Your task to perform on an android device: turn off smart reply in the gmail app Image 0: 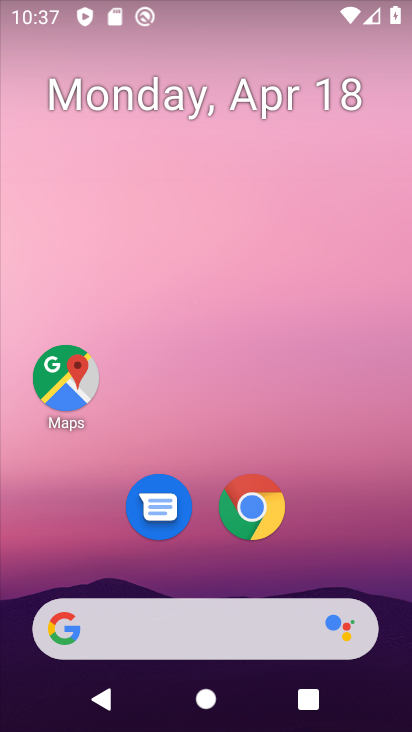
Step 0: drag from (329, 531) to (312, 79)
Your task to perform on an android device: turn off smart reply in the gmail app Image 1: 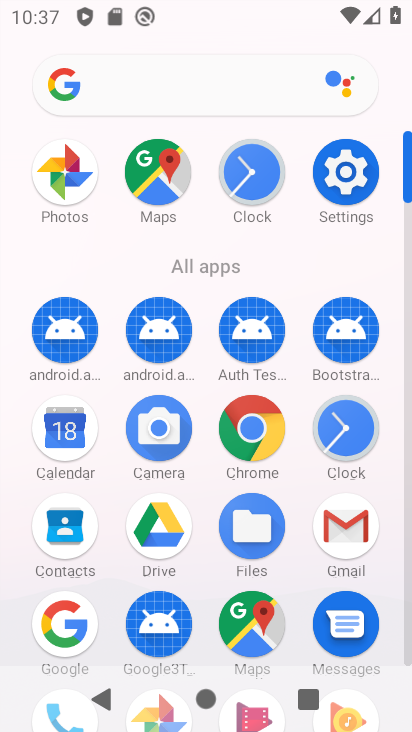
Step 1: click (350, 522)
Your task to perform on an android device: turn off smart reply in the gmail app Image 2: 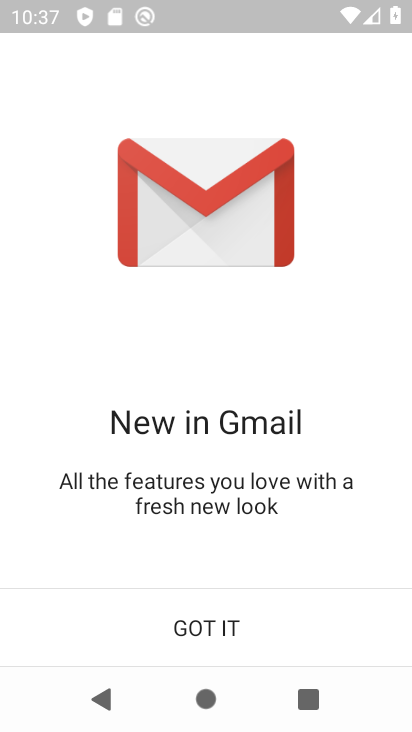
Step 2: click (225, 628)
Your task to perform on an android device: turn off smart reply in the gmail app Image 3: 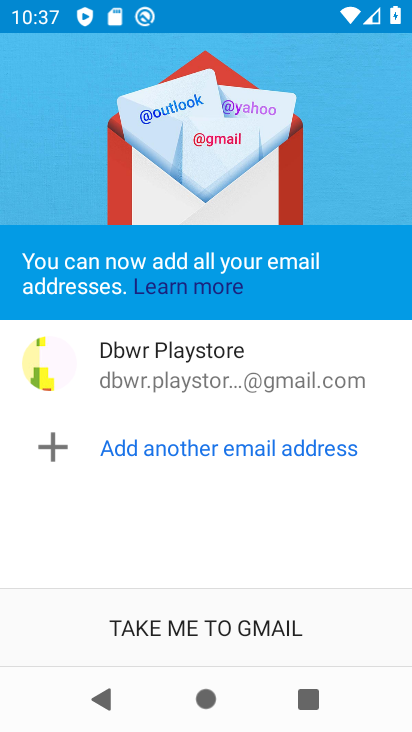
Step 3: click (292, 627)
Your task to perform on an android device: turn off smart reply in the gmail app Image 4: 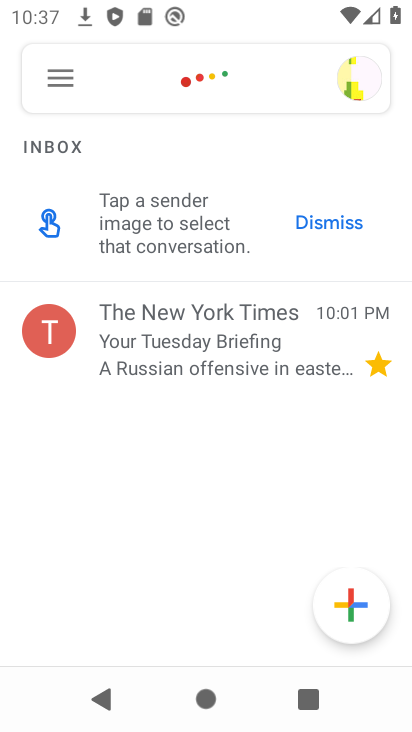
Step 4: click (52, 82)
Your task to perform on an android device: turn off smart reply in the gmail app Image 5: 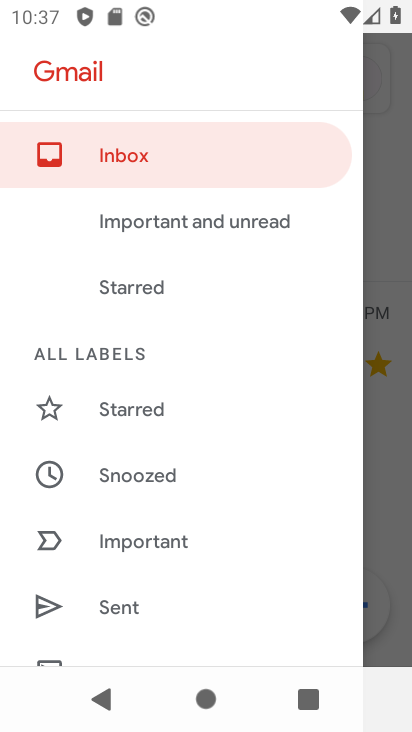
Step 5: drag from (88, 522) to (156, 290)
Your task to perform on an android device: turn off smart reply in the gmail app Image 6: 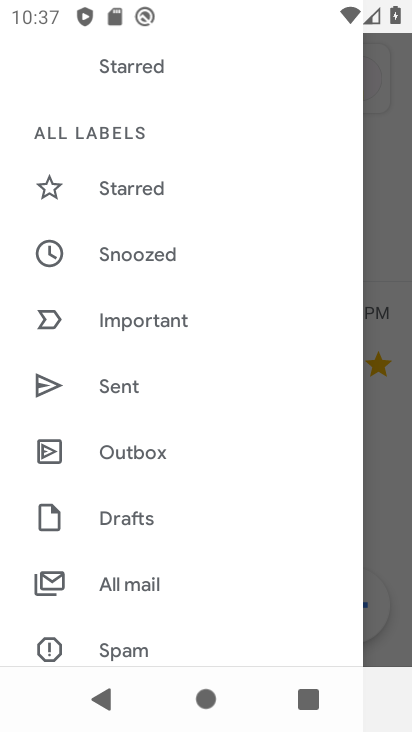
Step 6: drag from (136, 481) to (177, 328)
Your task to perform on an android device: turn off smart reply in the gmail app Image 7: 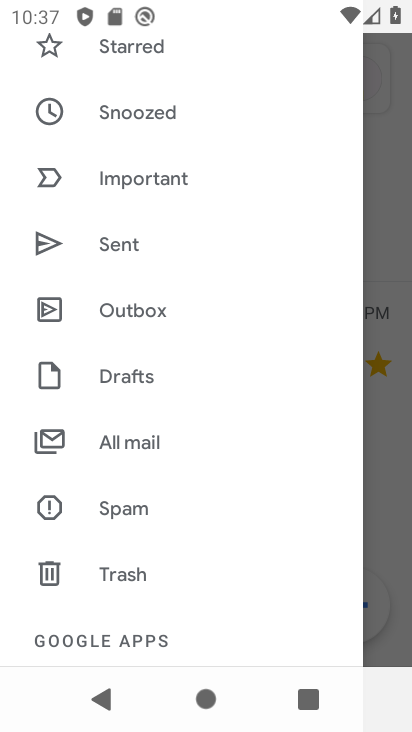
Step 7: drag from (183, 557) to (219, 395)
Your task to perform on an android device: turn off smart reply in the gmail app Image 8: 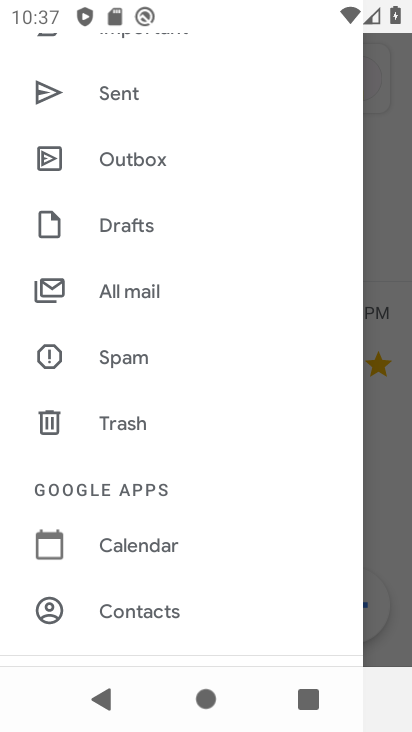
Step 8: drag from (187, 537) to (224, 392)
Your task to perform on an android device: turn off smart reply in the gmail app Image 9: 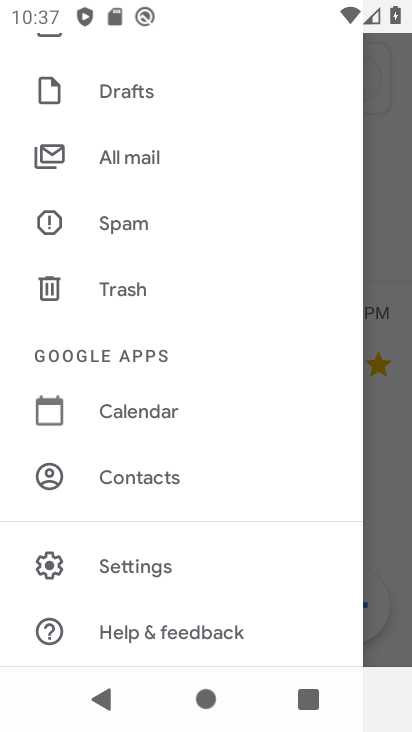
Step 9: click (158, 560)
Your task to perform on an android device: turn off smart reply in the gmail app Image 10: 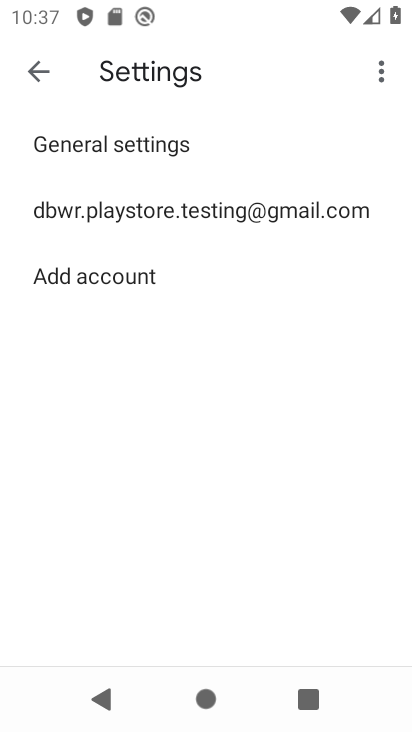
Step 10: click (150, 208)
Your task to perform on an android device: turn off smart reply in the gmail app Image 11: 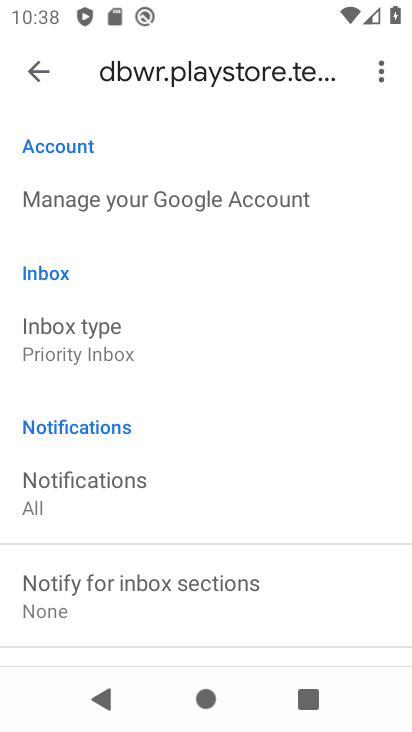
Step 11: drag from (124, 464) to (141, 350)
Your task to perform on an android device: turn off smart reply in the gmail app Image 12: 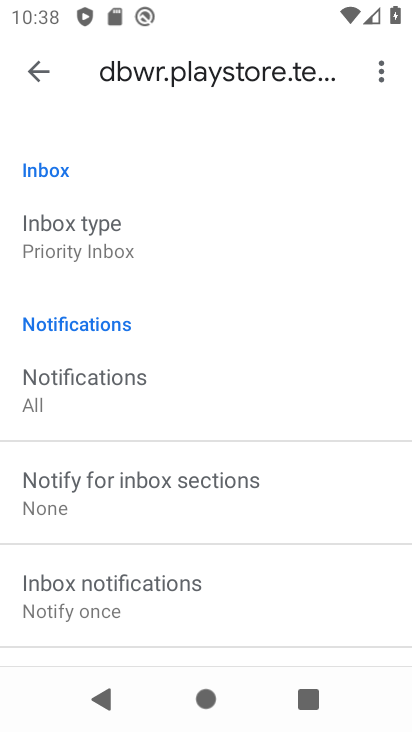
Step 12: drag from (136, 475) to (146, 387)
Your task to perform on an android device: turn off smart reply in the gmail app Image 13: 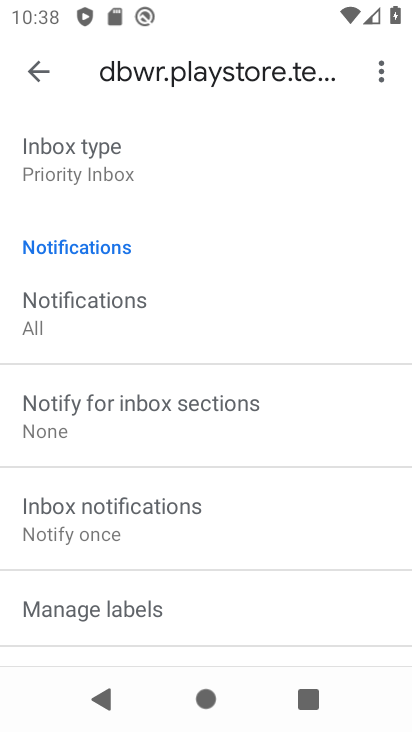
Step 13: drag from (128, 518) to (154, 396)
Your task to perform on an android device: turn off smart reply in the gmail app Image 14: 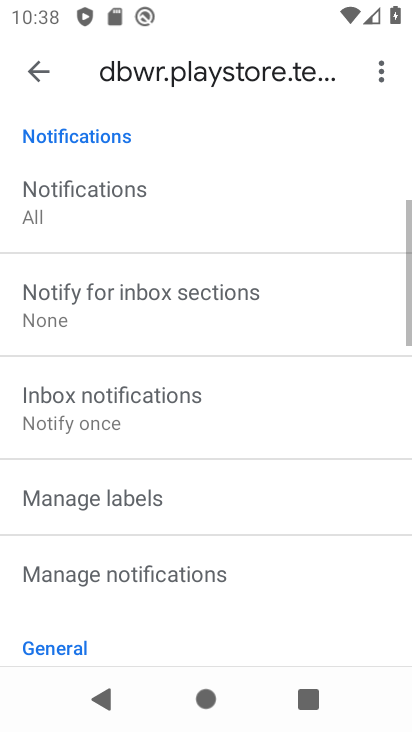
Step 14: drag from (142, 536) to (164, 436)
Your task to perform on an android device: turn off smart reply in the gmail app Image 15: 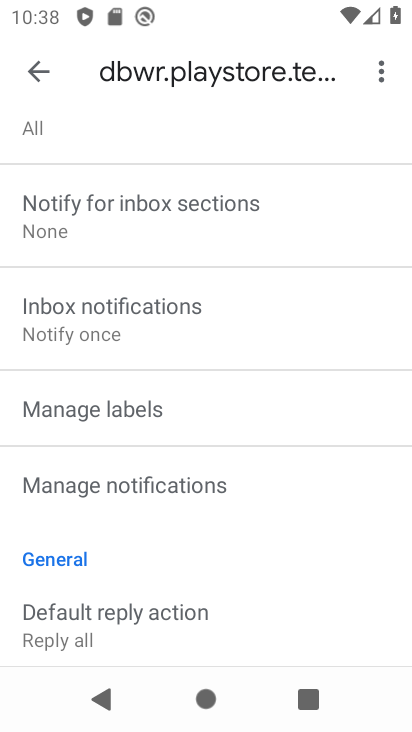
Step 15: drag from (191, 464) to (214, 432)
Your task to perform on an android device: turn off smart reply in the gmail app Image 16: 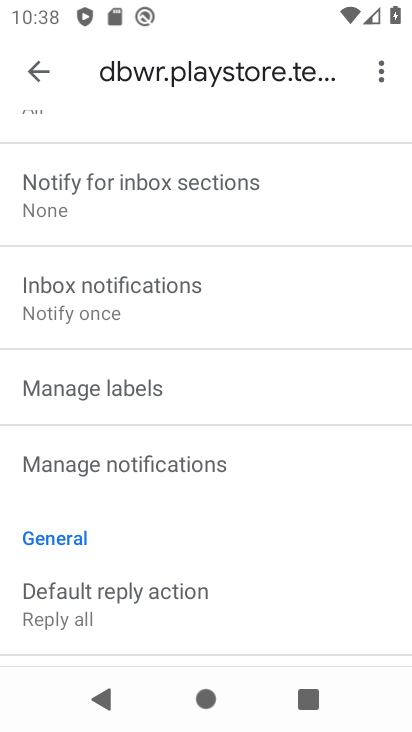
Step 16: drag from (193, 571) to (219, 510)
Your task to perform on an android device: turn off smart reply in the gmail app Image 17: 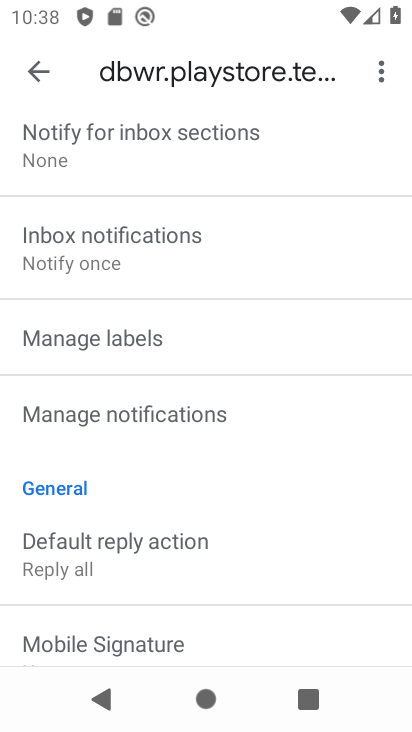
Step 17: drag from (201, 598) to (248, 477)
Your task to perform on an android device: turn off smart reply in the gmail app Image 18: 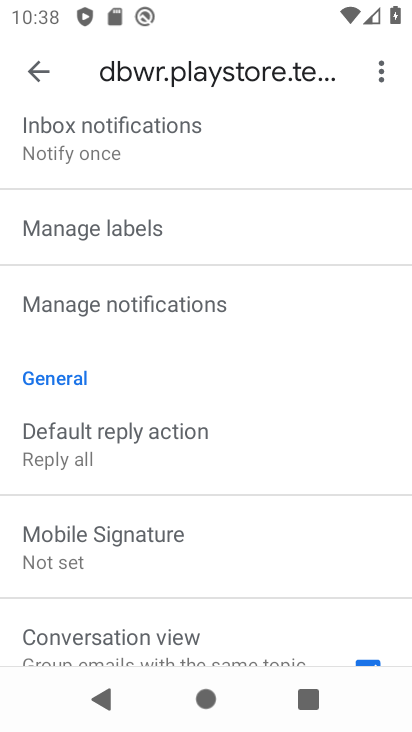
Step 18: drag from (233, 555) to (236, 486)
Your task to perform on an android device: turn off smart reply in the gmail app Image 19: 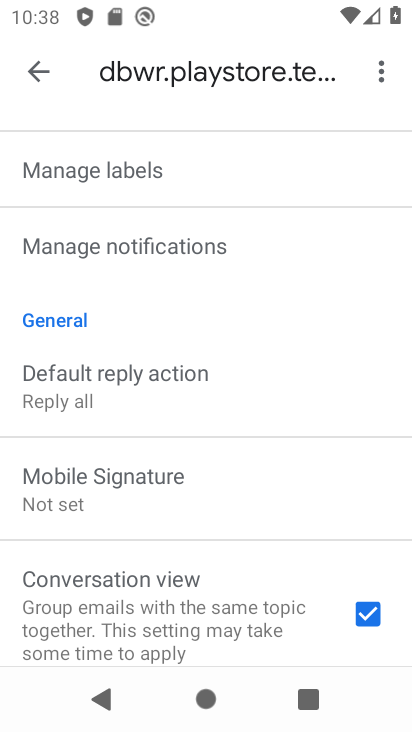
Step 19: drag from (216, 587) to (234, 487)
Your task to perform on an android device: turn off smart reply in the gmail app Image 20: 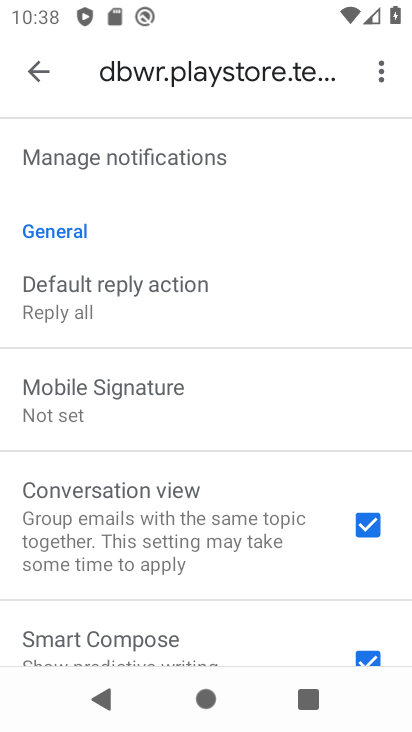
Step 20: drag from (212, 573) to (237, 495)
Your task to perform on an android device: turn off smart reply in the gmail app Image 21: 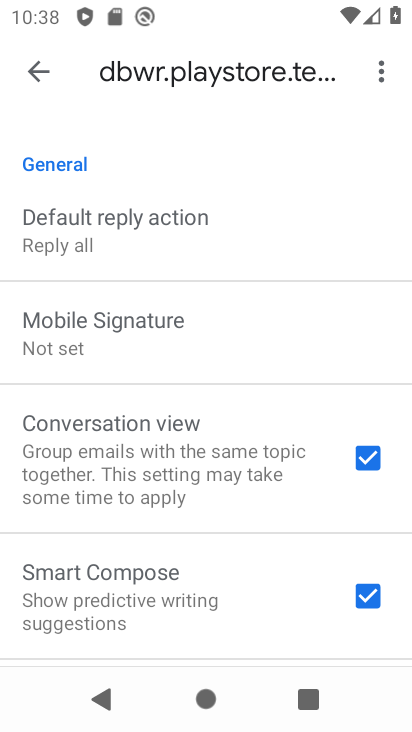
Step 21: drag from (229, 561) to (247, 491)
Your task to perform on an android device: turn off smart reply in the gmail app Image 22: 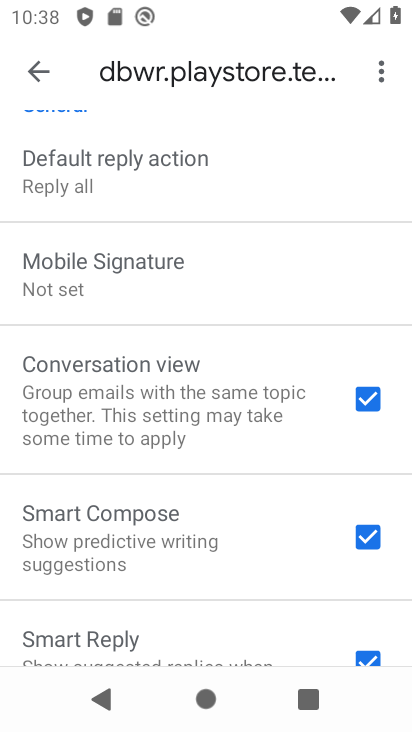
Step 22: drag from (254, 593) to (269, 504)
Your task to perform on an android device: turn off smart reply in the gmail app Image 23: 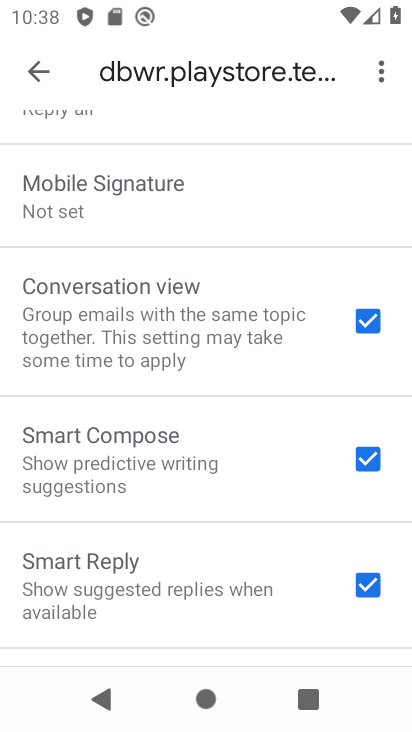
Step 23: click (354, 584)
Your task to perform on an android device: turn off smart reply in the gmail app Image 24: 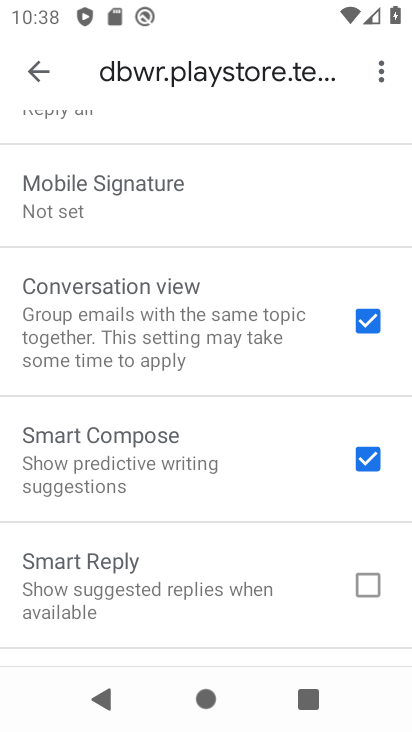
Step 24: task complete